Your task to perform on an android device: What's the weather going to be tomorrow? Image 0: 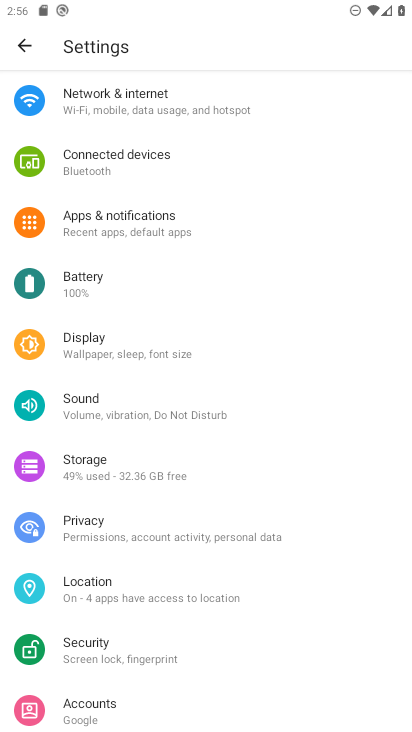
Step 0: press home button
Your task to perform on an android device: What's the weather going to be tomorrow? Image 1: 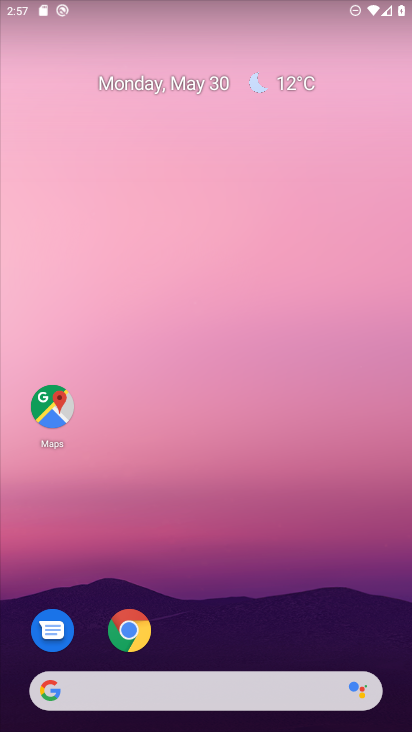
Step 1: click (281, 83)
Your task to perform on an android device: What's the weather going to be tomorrow? Image 2: 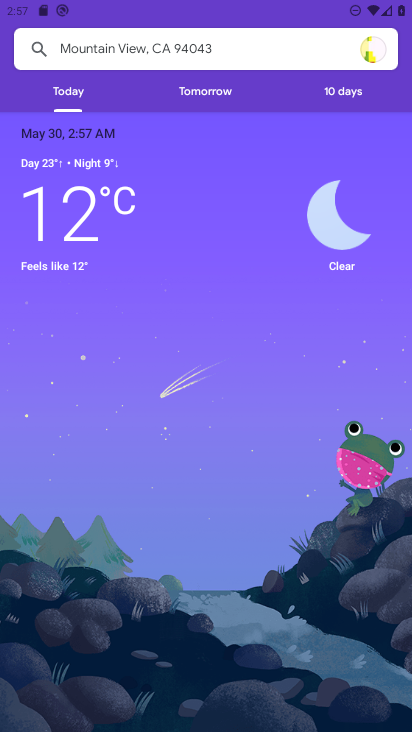
Step 2: click (205, 93)
Your task to perform on an android device: What's the weather going to be tomorrow? Image 3: 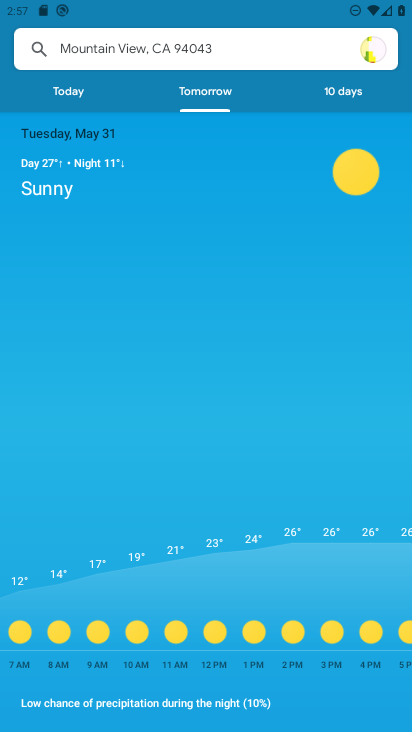
Step 3: task complete